Your task to perform on an android device: Turn off the flashlight Image 0: 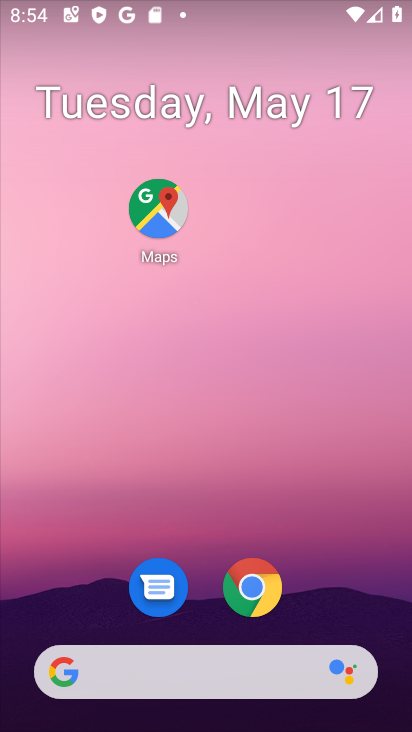
Step 0: drag from (32, 579) to (317, 205)
Your task to perform on an android device: Turn off the flashlight Image 1: 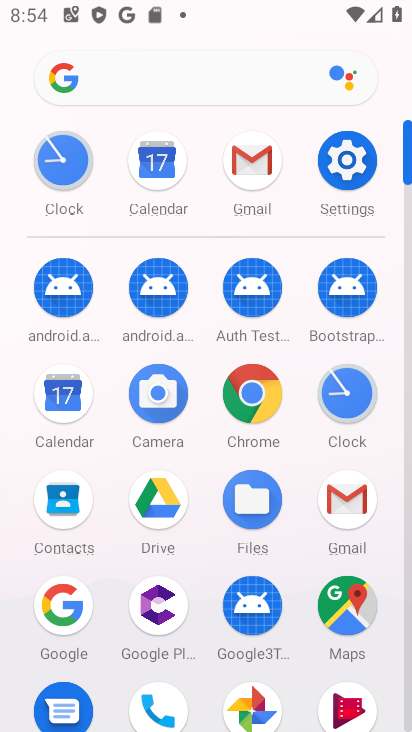
Step 1: click (344, 172)
Your task to perform on an android device: Turn off the flashlight Image 2: 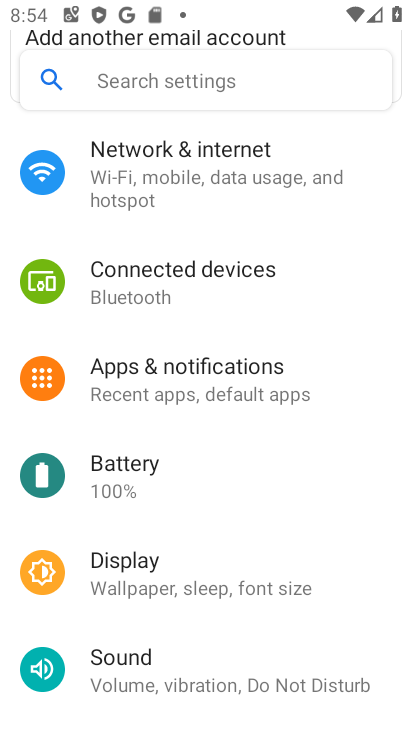
Step 2: click (116, 569)
Your task to perform on an android device: Turn off the flashlight Image 3: 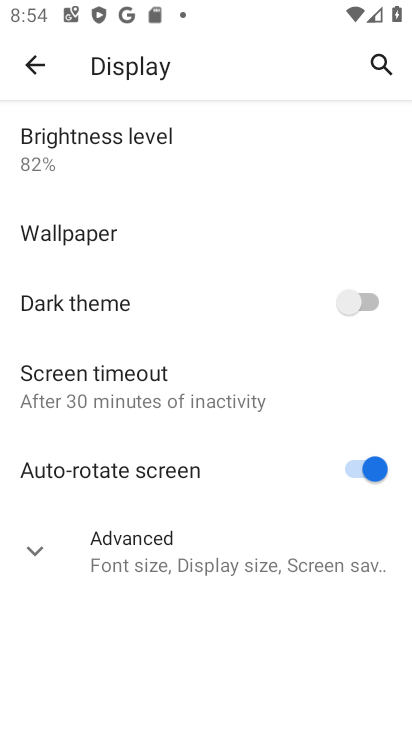
Step 3: task complete